Your task to perform on an android device: Show me recent news Image 0: 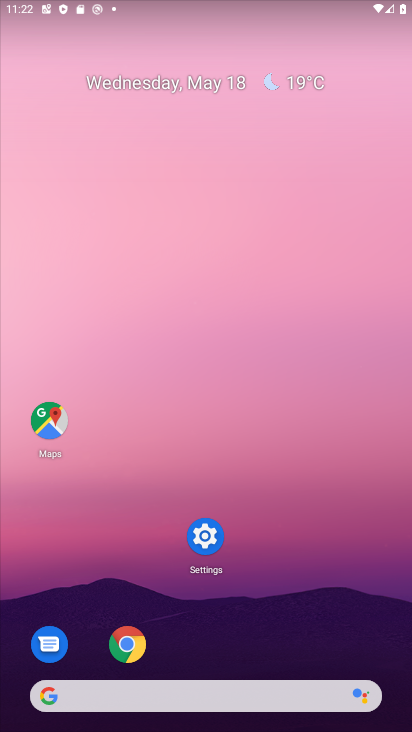
Step 0: drag from (308, 590) to (200, 152)
Your task to perform on an android device: Show me recent news Image 1: 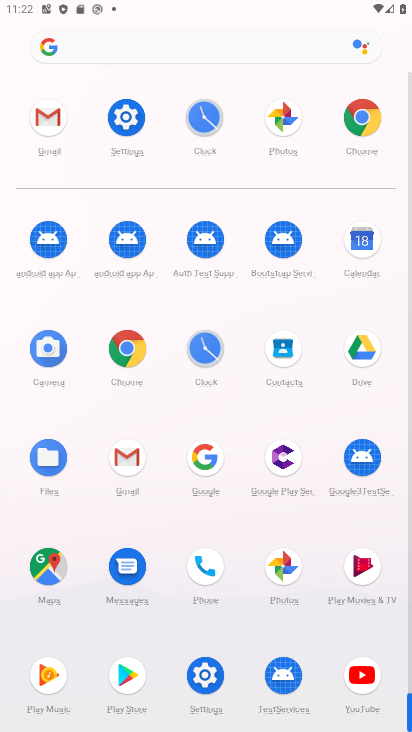
Step 1: click (135, 351)
Your task to perform on an android device: Show me recent news Image 2: 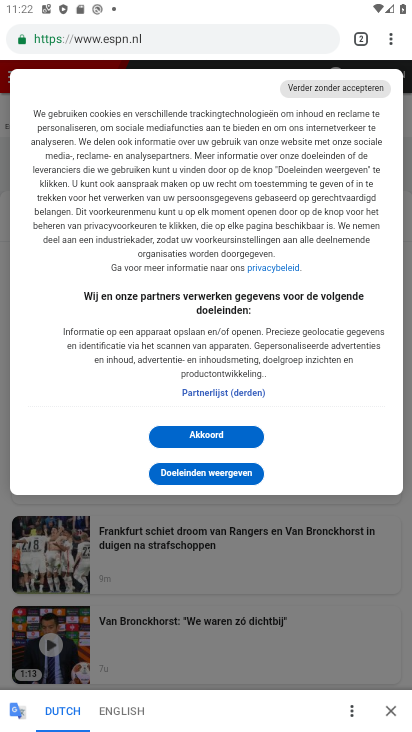
Step 2: type "news"
Your task to perform on an android device: Show me recent news Image 3: 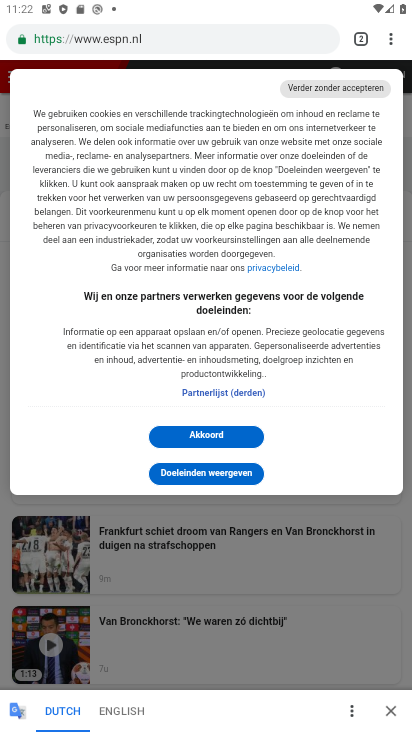
Step 3: click (247, 21)
Your task to perform on an android device: Show me recent news Image 4: 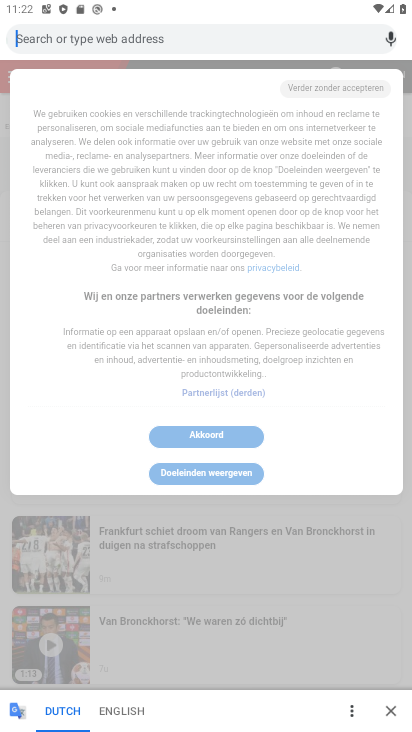
Step 4: click (247, 40)
Your task to perform on an android device: Show me recent news Image 5: 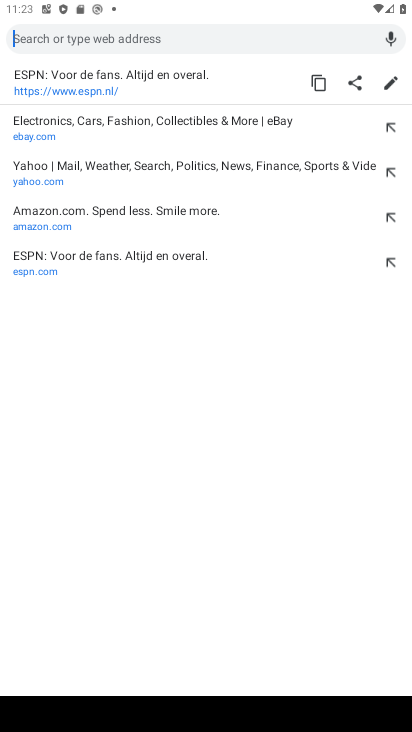
Step 5: type "news"
Your task to perform on an android device: Show me recent news Image 6: 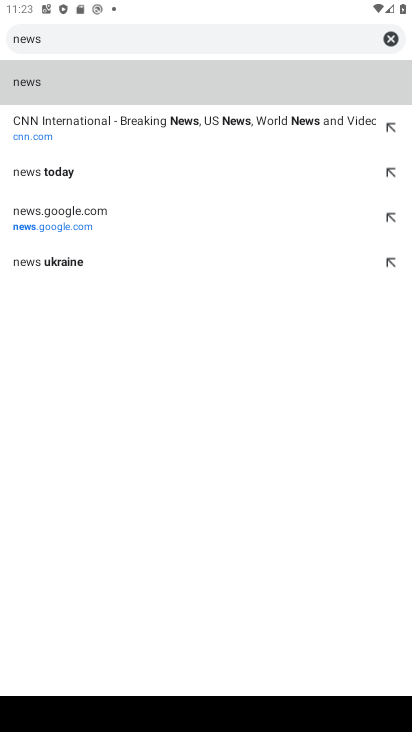
Step 6: click (21, 88)
Your task to perform on an android device: Show me recent news Image 7: 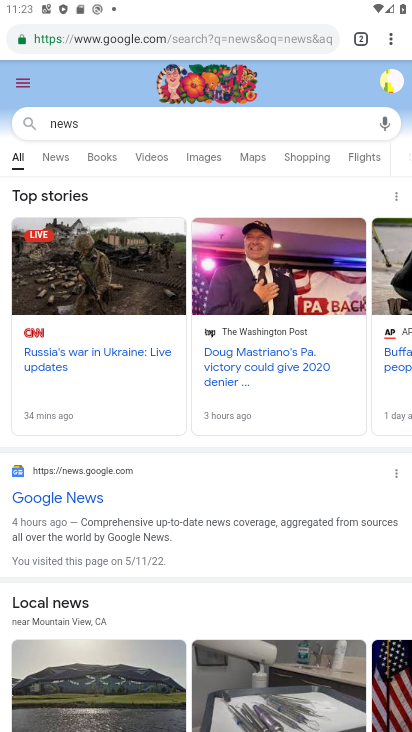
Step 7: click (85, 497)
Your task to perform on an android device: Show me recent news Image 8: 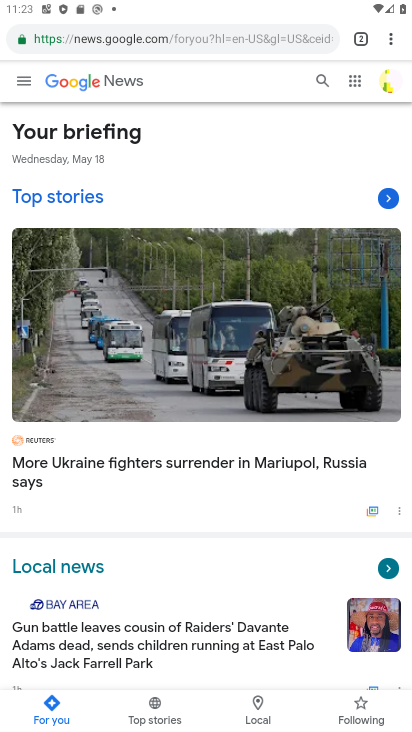
Step 8: task complete